Your task to perform on an android device: Empty the shopping cart on newegg. Add "lenovo thinkpad" to the cart on newegg, then select checkout. Image 0: 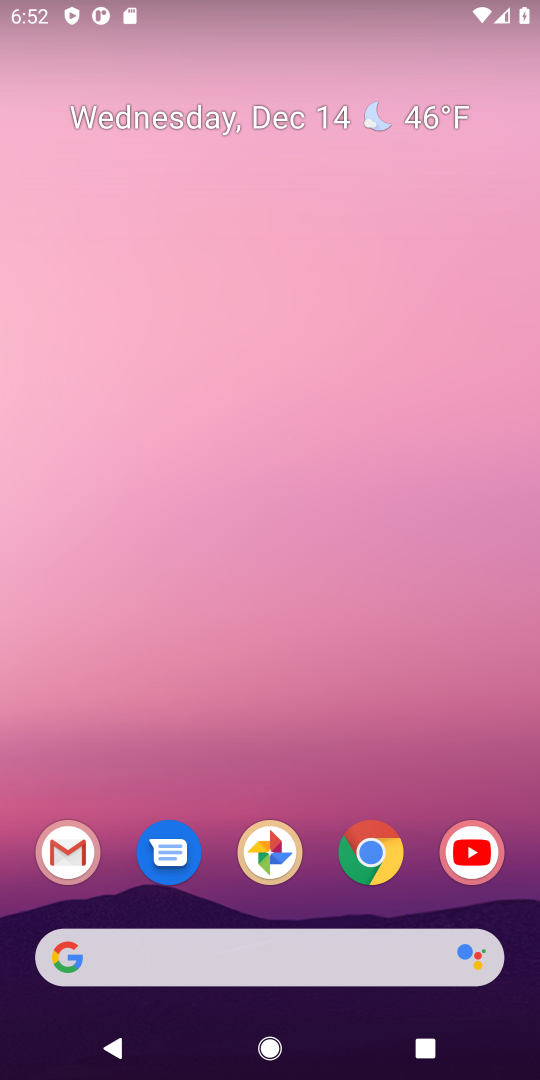
Step 0: click (361, 853)
Your task to perform on an android device: Empty the shopping cart on newegg. Add "lenovo thinkpad" to the cart on newegg, then select checkout. Image 1: 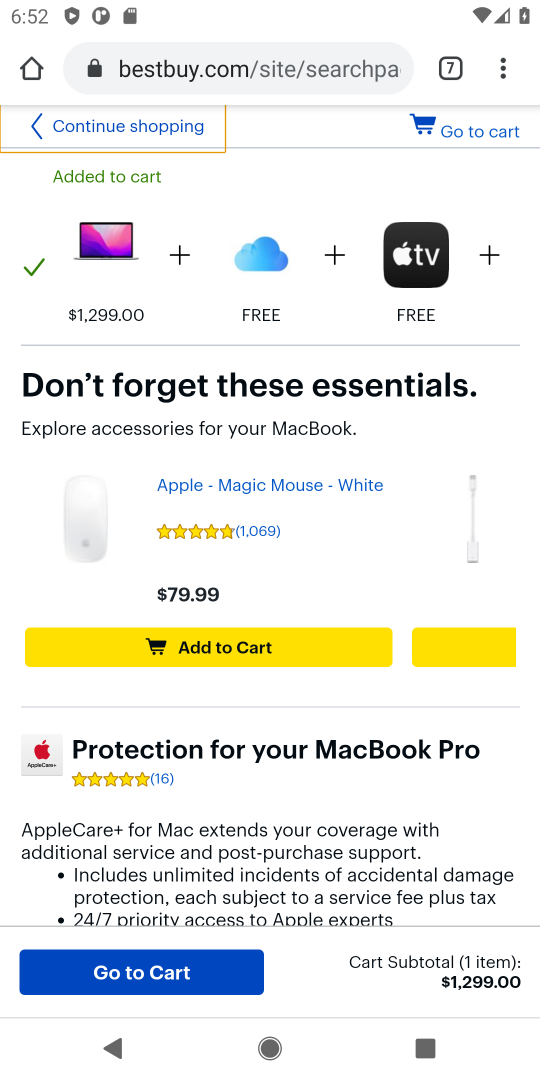
Step 1: click (444, 63)
Your task to perform on an android device: Empty the shopping cart on newegg. Add "lenovo thinkpad" to the cart on newegg, then select checkout. Image 2: 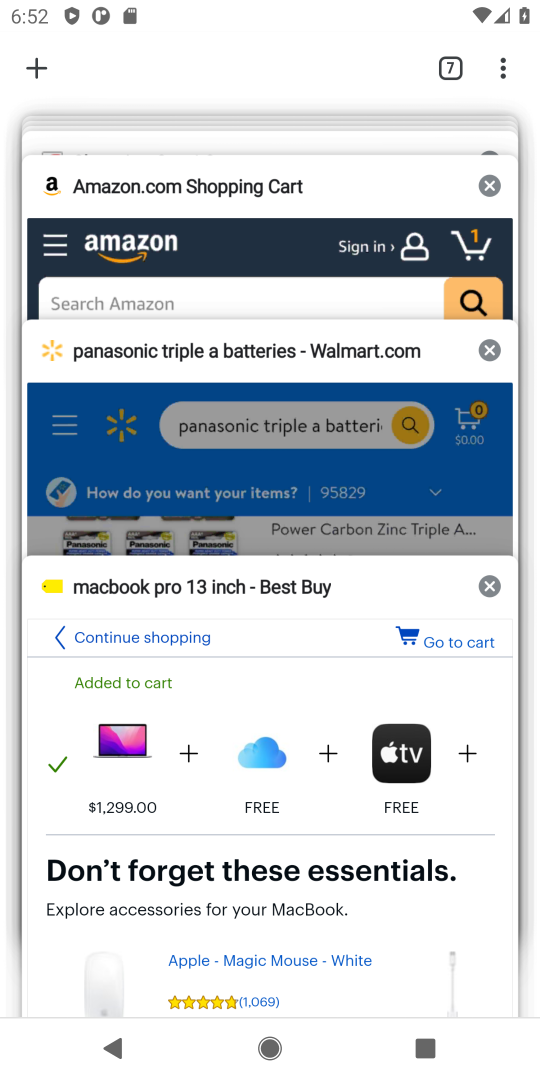
Step 2: drag from (235, 164) to (157, 379)
Your task to perform on an android device: Empty the shopping cart on newegg. Add "lenovo thinkpad" to the cart on newegg, then select checkout. Image 3: 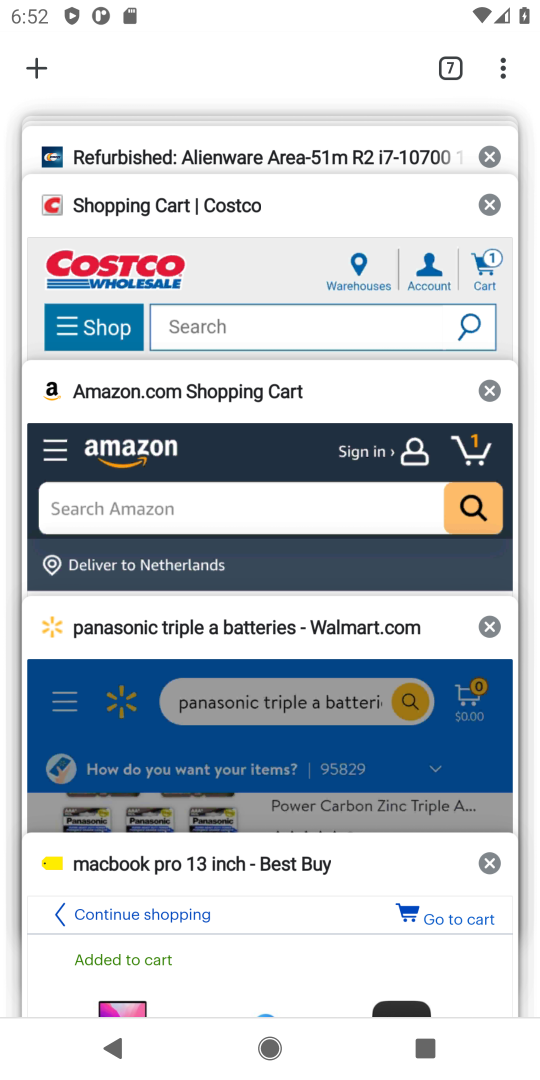
Step 3: click (201, 154)
Your task to perform on an android device: Empty the shopping cart on newegg. Add "lenovo thinkpad" to the cart on newegg, then select checkout. Image 4: 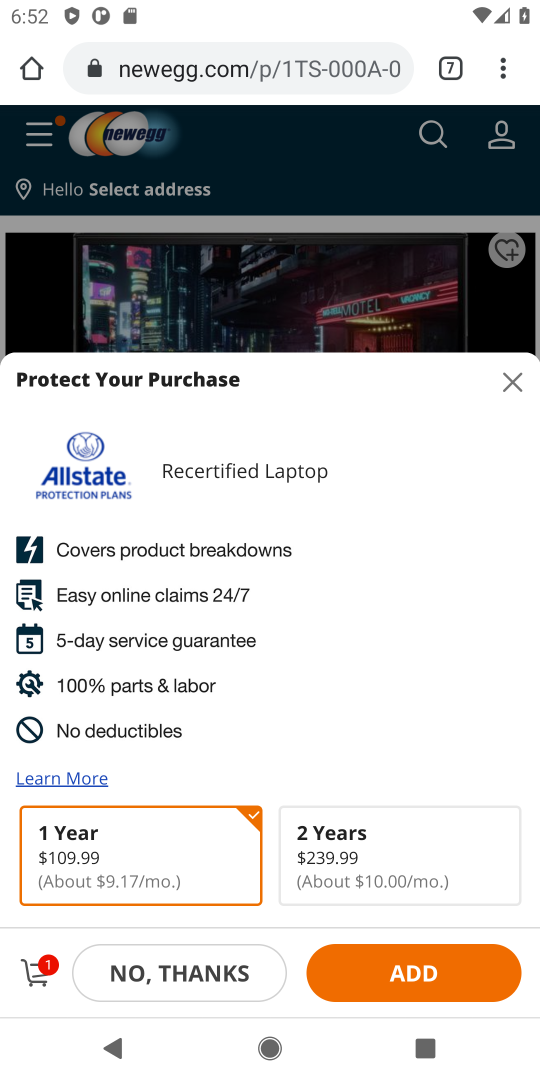
Step 4: click (513, 373)
Your task to perform on an android device: Empty the shopping cart on newegg. Add "lenovo thinkpad" to the cart on newegg, then select checkout. Image 5: 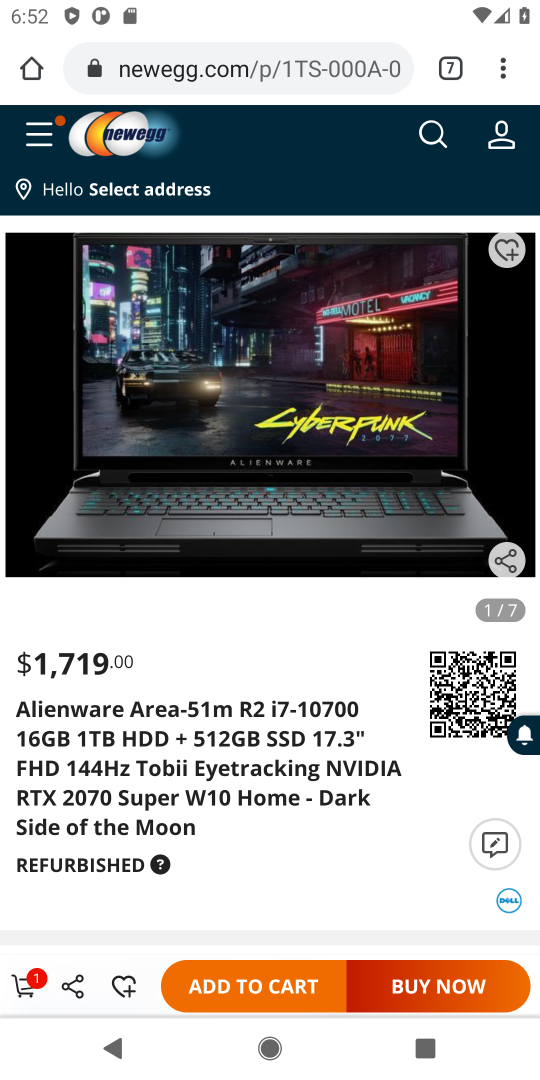
Step 5: click (29, 982)
Your task to perform on an android device: Empty the shopping cart on newegg. Add "lenovo thinkpad" to the cart on newegg, then select checkout. Image 6: 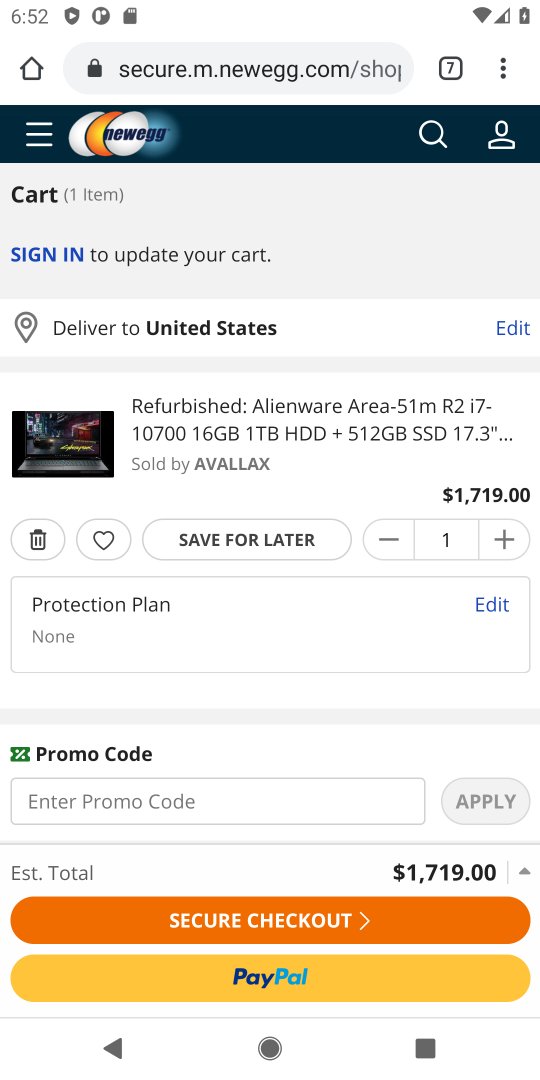
Step 6: click (28, 546)
Your task to perform on an android device: Empty the shopping cart on newegg. Add "lenovo thinkpad" to the cart on newegg, then select checkout. Image 7: 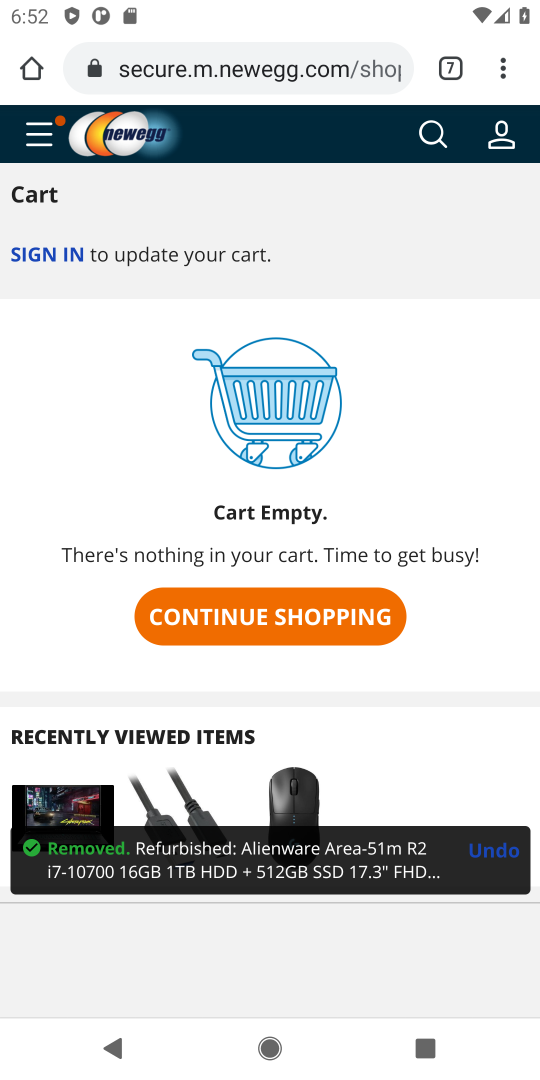
Step 7: click (430, 135)
Your task to perform on an android device: Empty the shopping cart on newegg. Add "lenovo thinkpad" to the cart on newegg, then select checkout. Image 8: 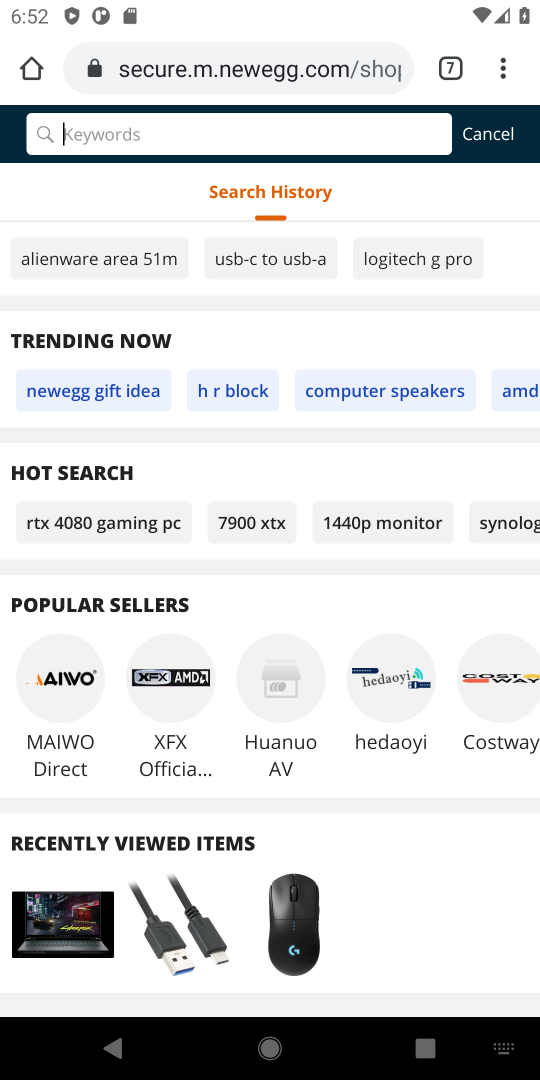
Step 8: type "lenovo thinkpad"
Your task to perform on an android device: Empty the shopping cart on newegg. Add "lenovo thinkpad" to the cart on newegg, then select checkout. Image 9: 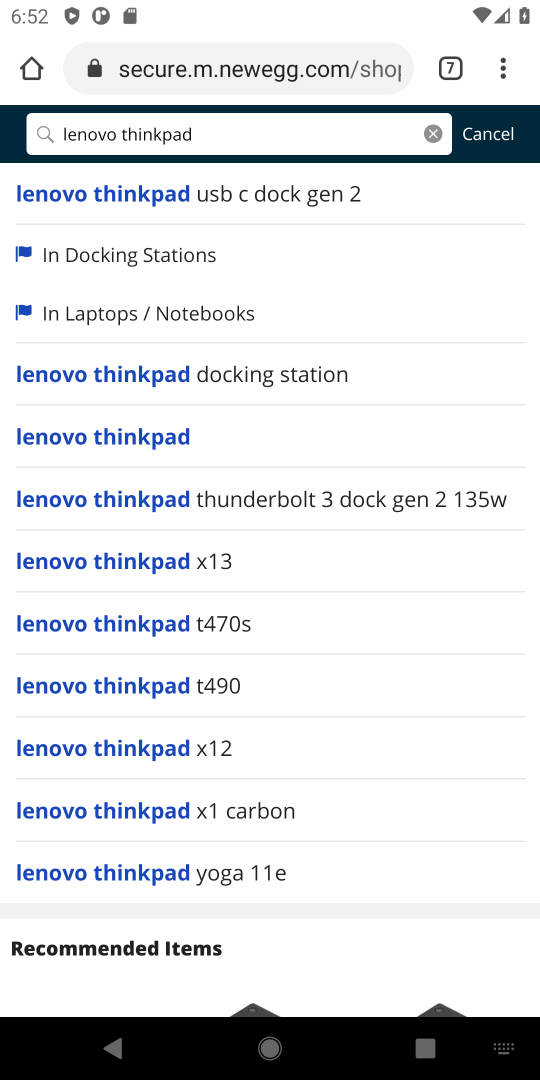
Step 9: click (128, 194)
Your task to perform on an android device: Empty the shopping cart on newegg. Add "lenovo thinkpad" to the cart on newegg, then select checkout. Image 10: 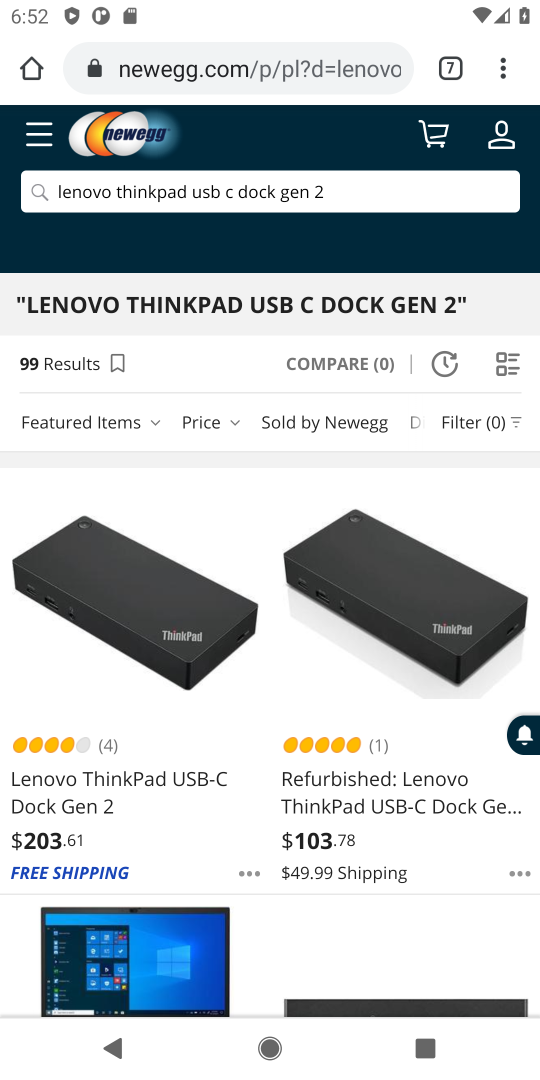
Step 10: click (108, 780)
Your task to perform on an android device: Empty the shopping cart on newegg. Add "lenovo thinkpad" to the cart on newegg, then select checkout. Image 11: 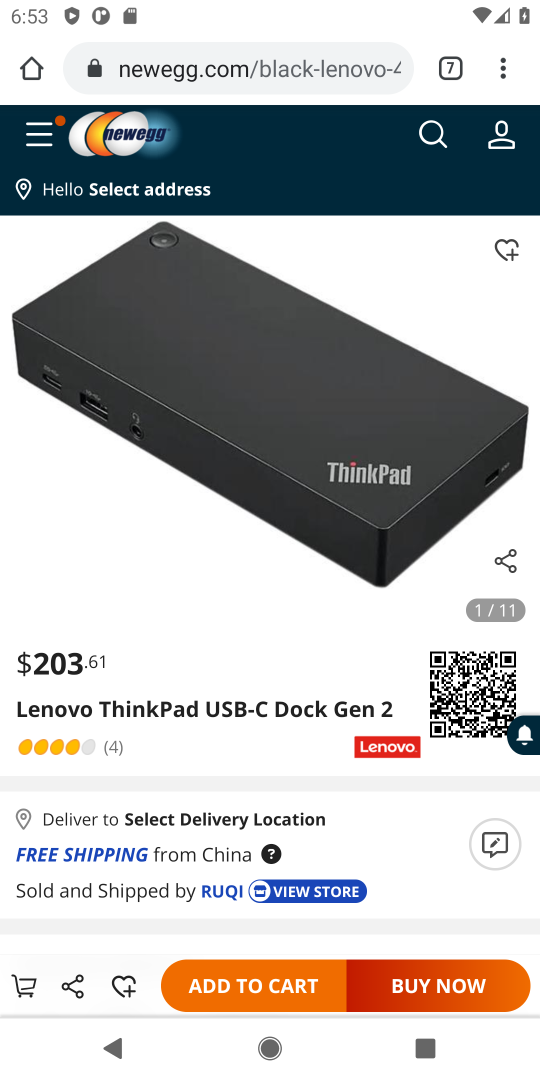
Step 11: click (258, 995)
Your task to perform on an android device: Empty the shopping cart on newegg. Add "lenovo thinkpad" to the cart on newegg, then select checkout. Image 12: 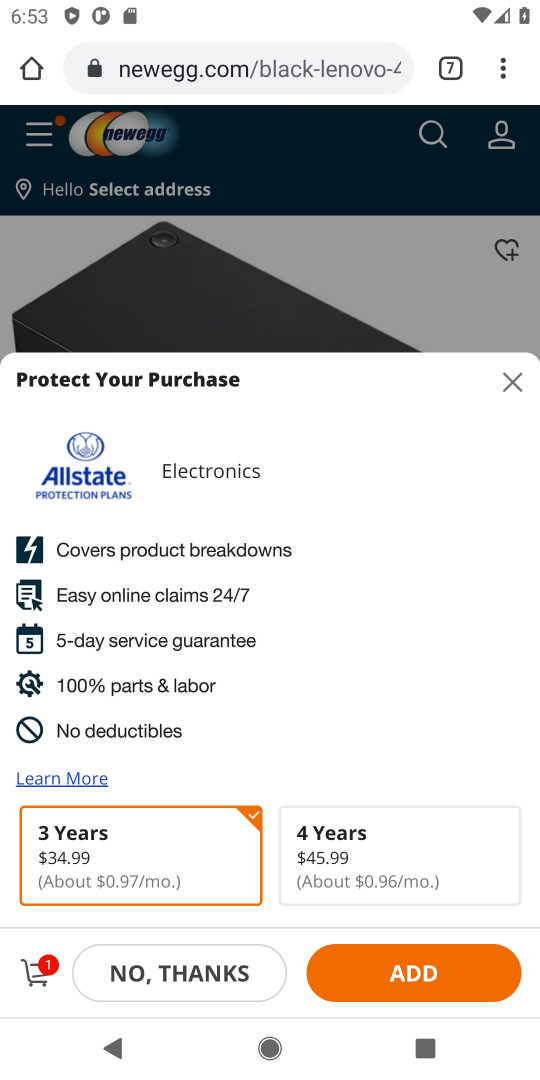
Step 12: task complete